Your task to perform on an android device: Open Maps and search for coffee Image 0: 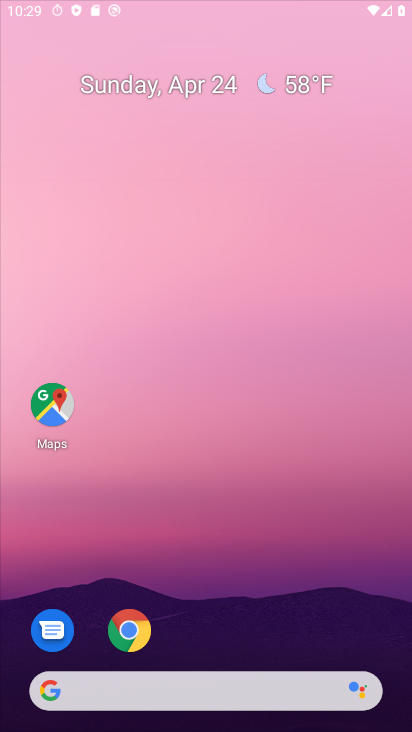
Step 0: drag from (304, 358) to (344, 206)
Your task to perform on an android device: Open Maps and search for coffee Image 1: 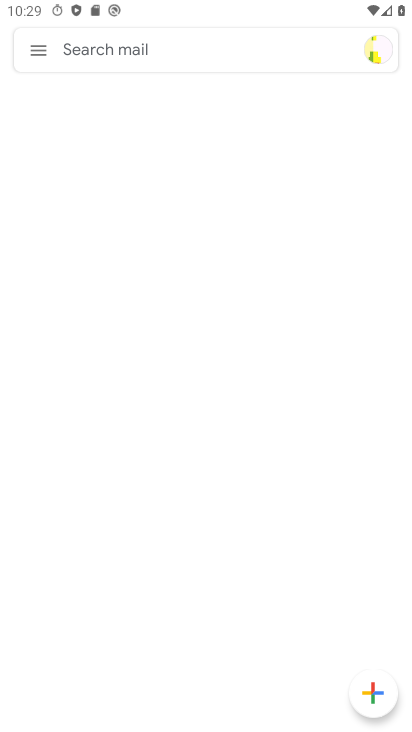
Step 1: press home button
Your task to perform on an android device: Open Maps and search for coffee Image 2: 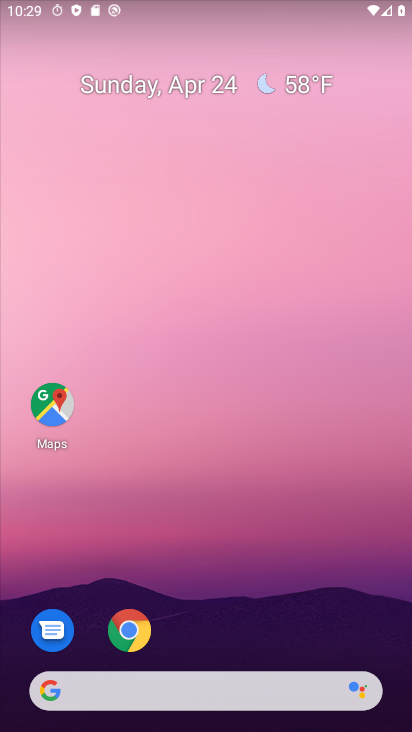
Step 2: drag from (267, 623) to (286, 327)
Your task to perform on an android device: Open Maps and search for coffee Image 3: 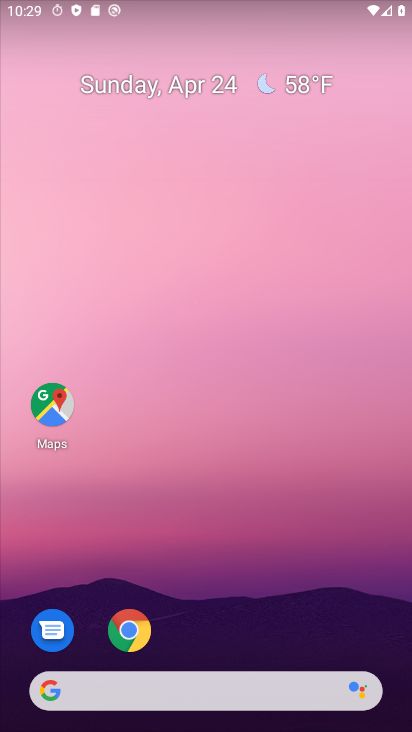
Step 3: drag from (252, 607) to (372, 210)
Your task to perform on an android device: Open Maps and search for coffee Image 4: 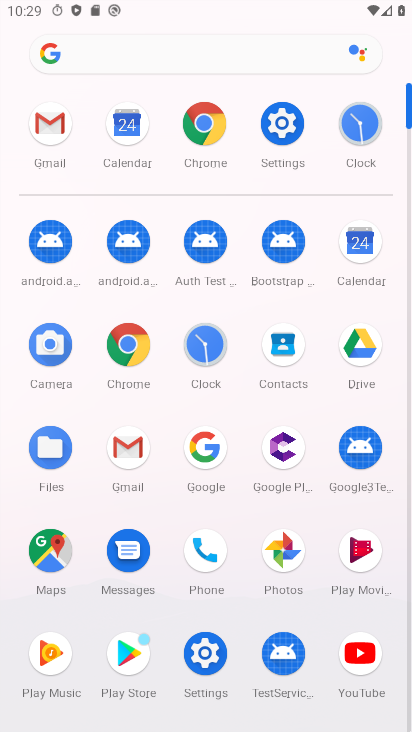
Step 4: click (66, 565)
Your task to perform on an android device: Open Maps and search for coffee Image 5: 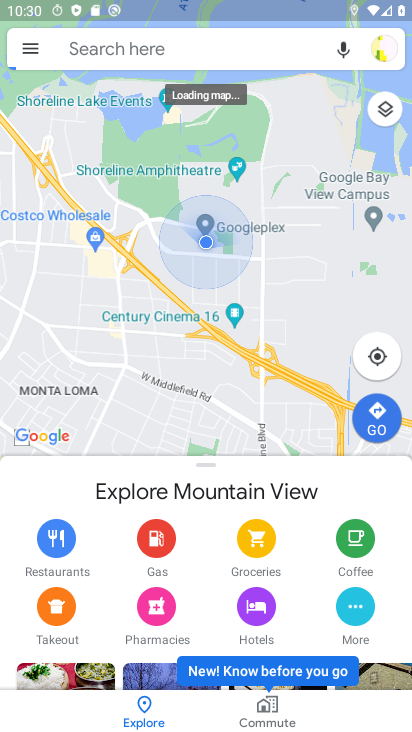
Step 5: click (221, 51)
Your task to perform on an android device: Open Maps and search for coffee Image 6: 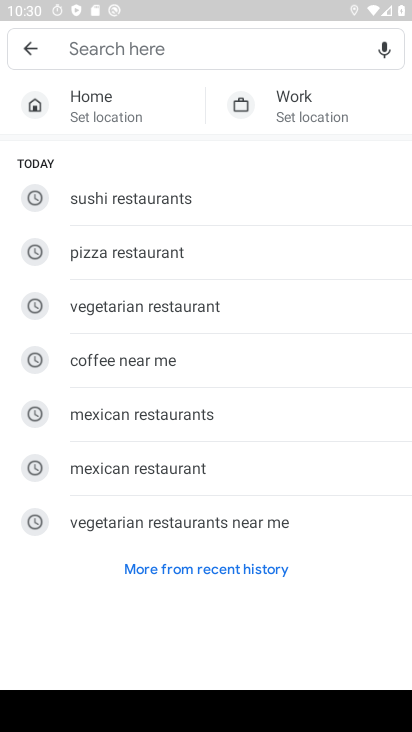
Step 6: type "coffee"
Your task to perform on an android device: Open Maps and search for coffee Image 7: 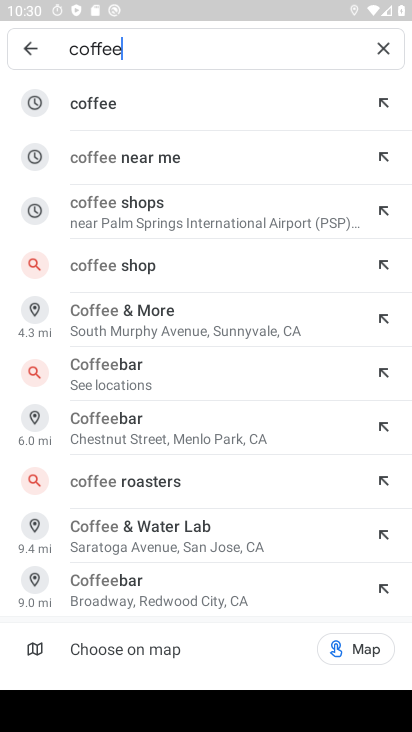
Step 7: click (228, 96)
Your task to perform on an android device: Open Maps and search for coffee Image 8: 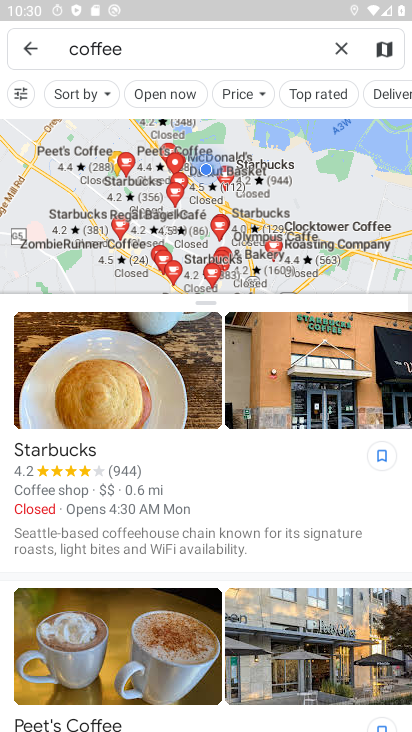
Step 8: task complete